Your task to perform on an android device: What's the news in India? Image 0: 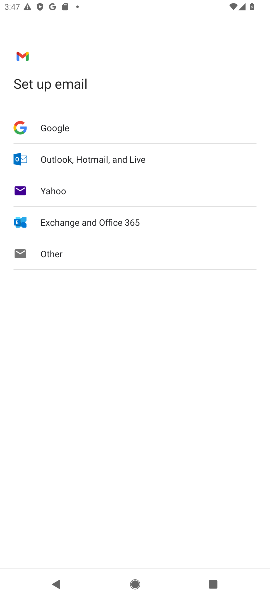
Step 0: press home button
Your task to perform on an android device: What's the news in India? Image 1: 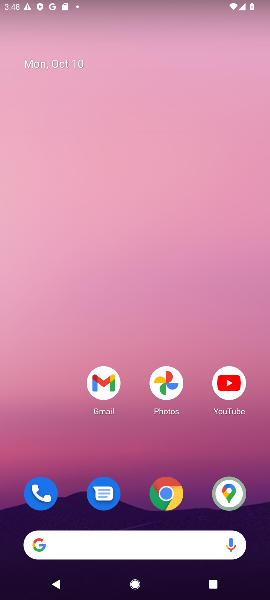
Step 1: click (124, 536)
Your task to perform on an android device: What's the news in India? Image 2: 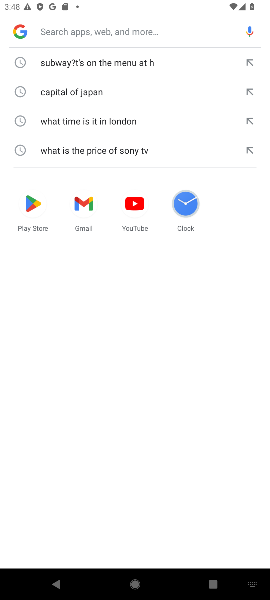
Step 2: type "the news in India"
Your task to perform on an android device: What's the news in India? Image 3: 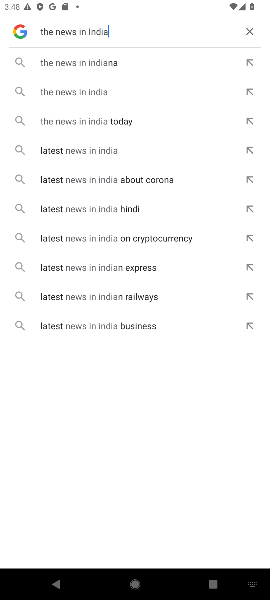
Step 3: click (110, 59)
Your task to perform on an android device: What's the news in India? Image 4: 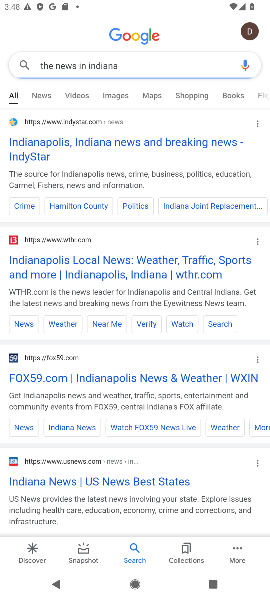
Step 4: task complete